Your task to perform on an android device: check android version Image 0: 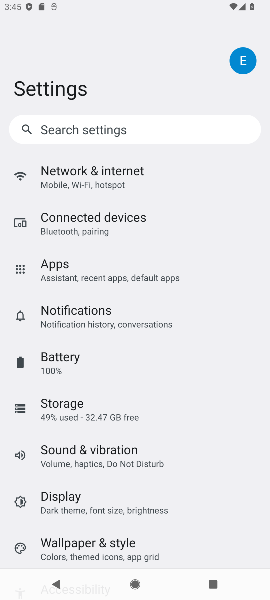
Step 0: drag from (197, 503) to (140, 8)
Your task to perform on an android device: check android version Image 1: 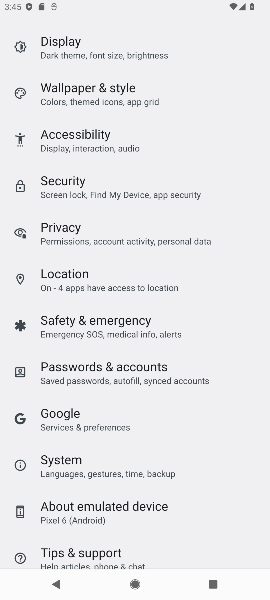
Step 1: drag from (120, 551) to (166, 30)
Your task to perform on an android device: check android version Image 2: 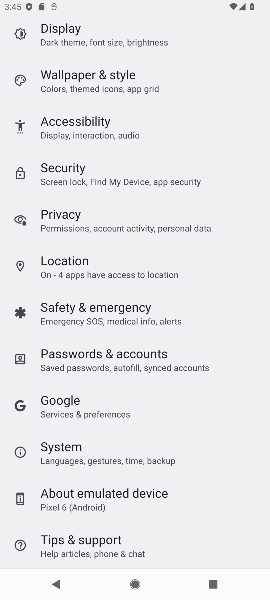
Step 2: click (104, 488)
Your task to perform on an android device: check android version Image 3: 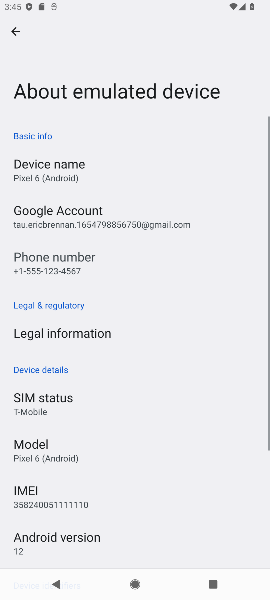
Step 3: drag from (89, 470) to (135, 139)
Your task to perform on an android device: check android version Image 4: 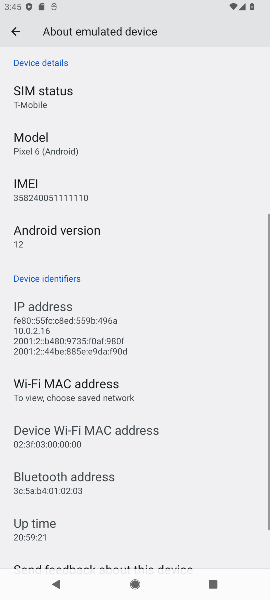
Step 4: click (62, 226)
Your task to perform on an android device: check android version Image 5: 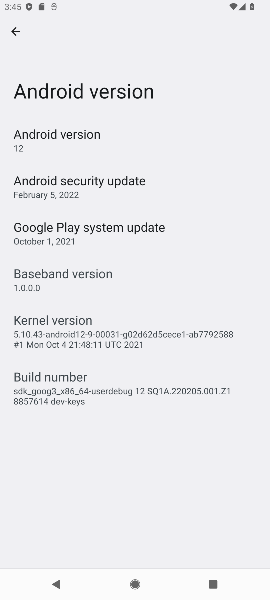
Step 5: task complete